Your task to perform on an android device: turn on showing notifications on the lock screen Image 0: 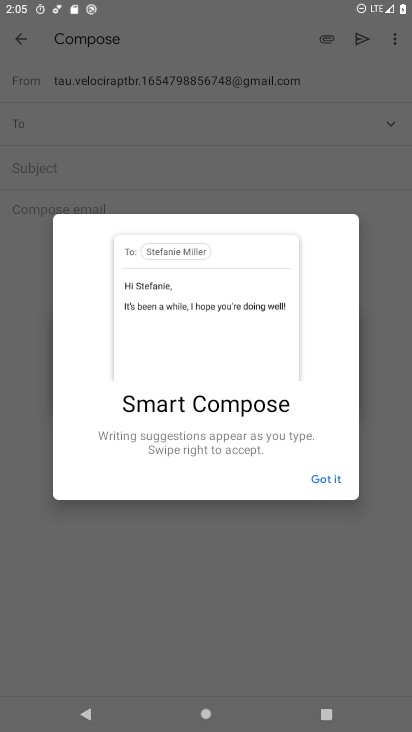
Step 0: press home button
Your task to perform on an android device: turn on showing notifications on the lock screen Image 1: 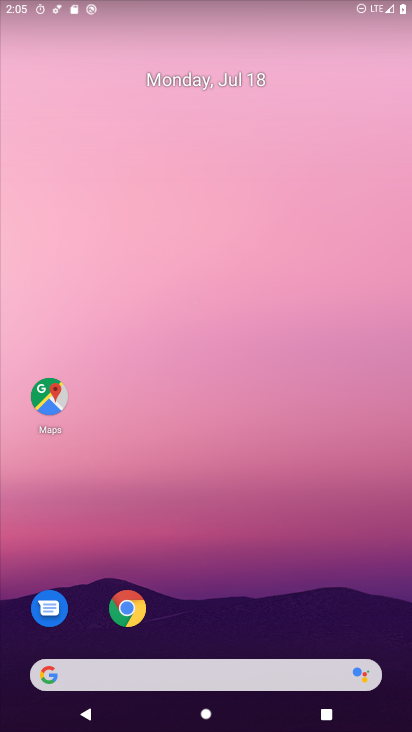
Step 1: drag from (240, 711) to (229, 122)
Your task to perform on an android device: turn on showing notifications on the lock screen Image 2: 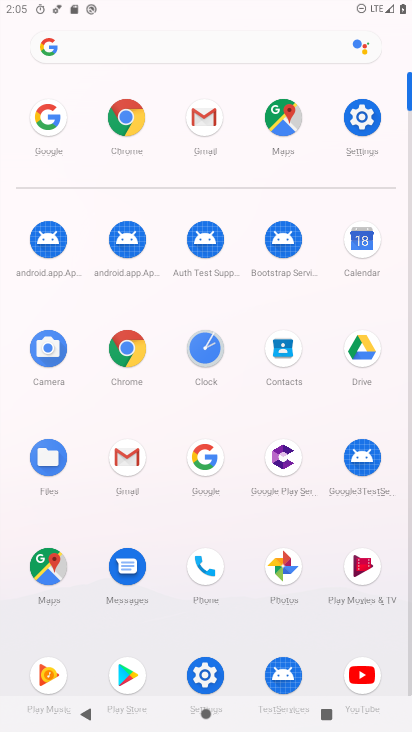
Step 2: click (359, 117)
Your task to perform on an android device: turn on showing notifications on the lock screen Image 3: 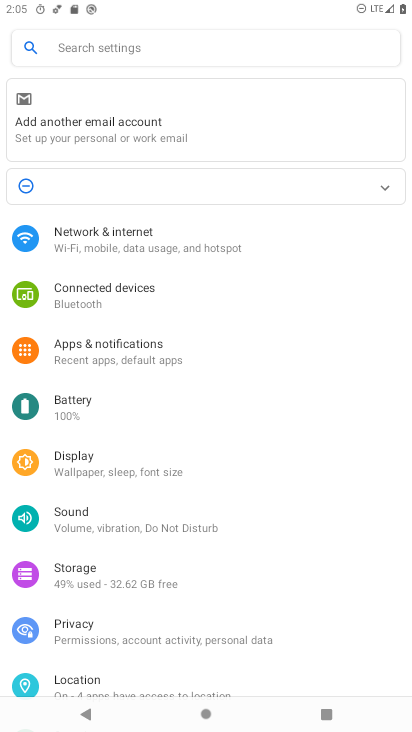
Step 3: click (114, 350)
Your task to perform on an android device: turn on showing notifications on the lock screen Image 4: 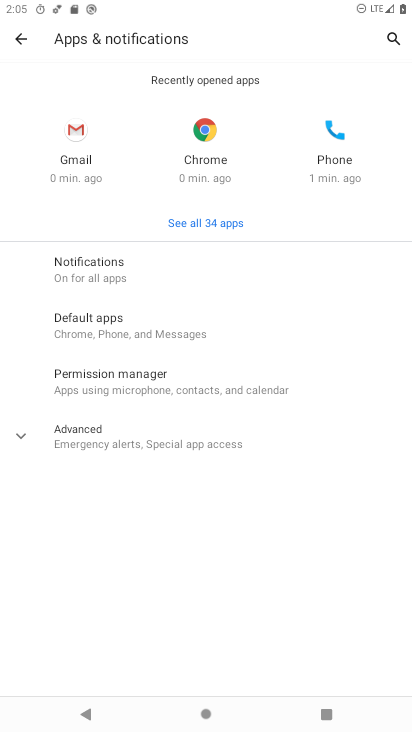
Step 4: click (83, 434)
Your task to perform on an android device: turn on showing notifications on the lock screen Image 5: 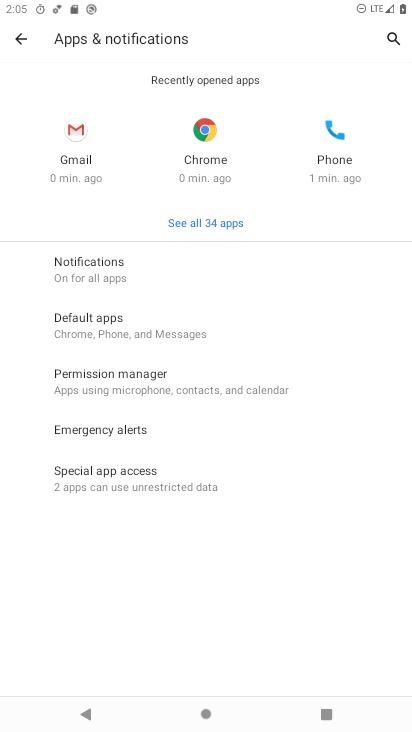
Step 5: click (86, 266)
Your task to perform on an android device: turn on showing notifications on the lock screen Image 6: 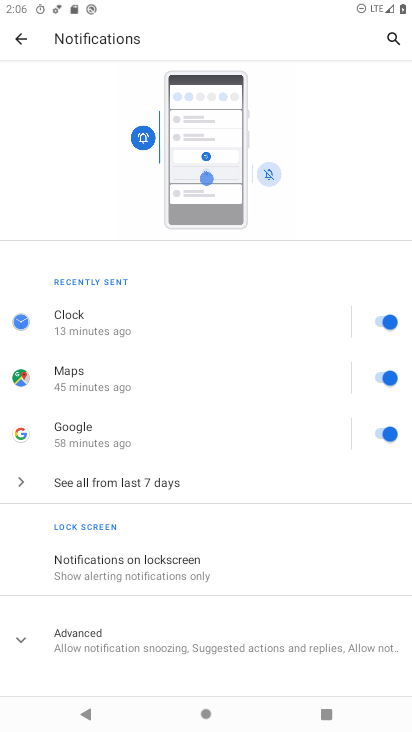
Step 6: click (124, 562)
Your task to perform on an android device: turn on showing notifications on the lock screen Image 7: 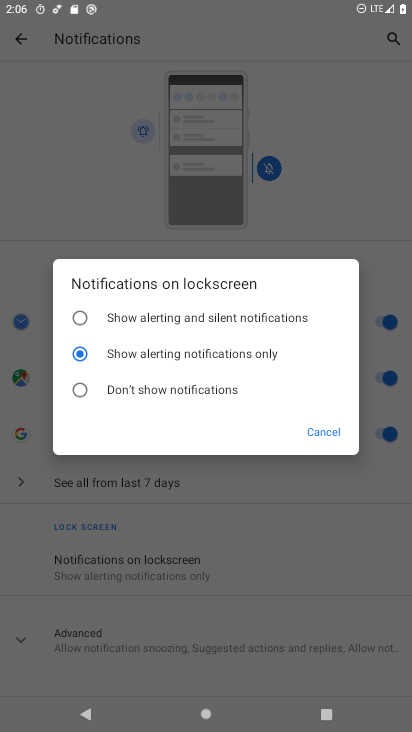
Step 7: click (81, 388)
Your task to perform on an android device: turn on showing notifications on the lock screen Image 8: 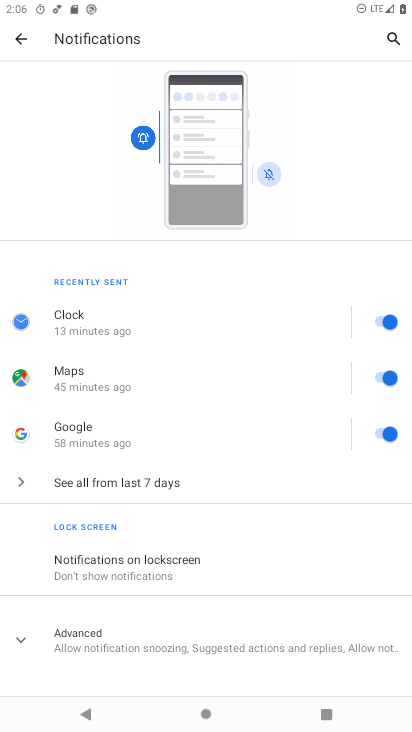
Step 8: task complete